Your task to perform on an android device: What's on my calendar today? Image 0: 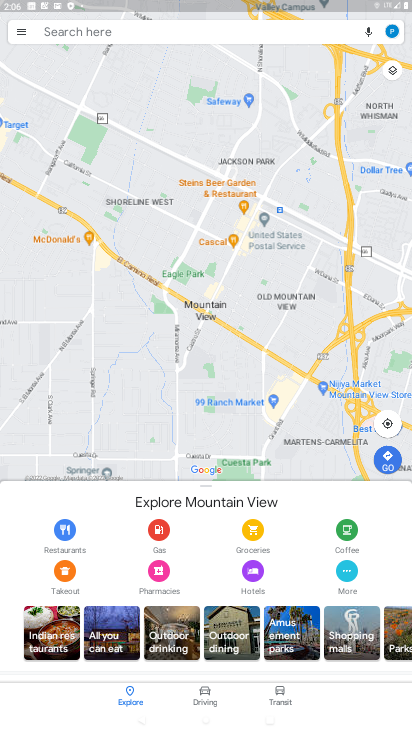
Step 0: press home button
Your task to perform on an android device: What's on my calendar today? Image 1: 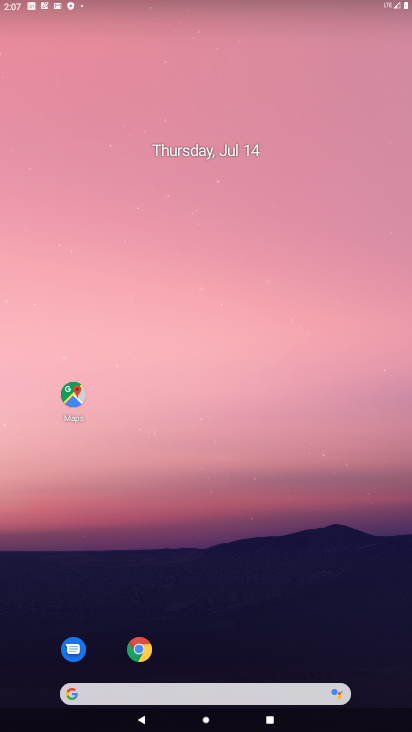
Step 1: drag from (392, 677) to (179, 74)
Your task to perform on an android device: What's on my calendar today? Image 2: 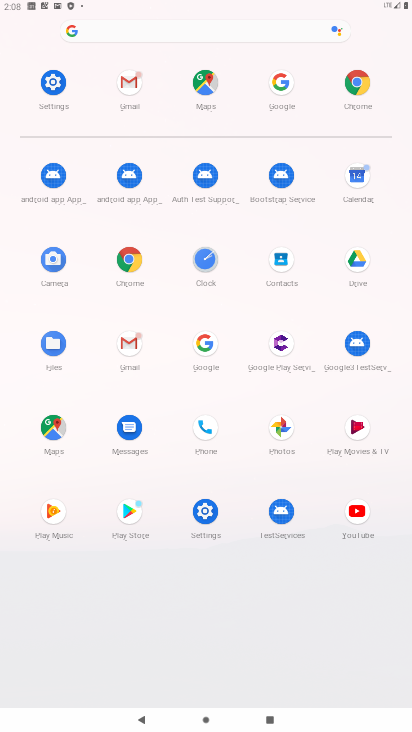
Step 2: click (363, 173)
Your task to perform on an android device: What's on my calendar today? Image 3: 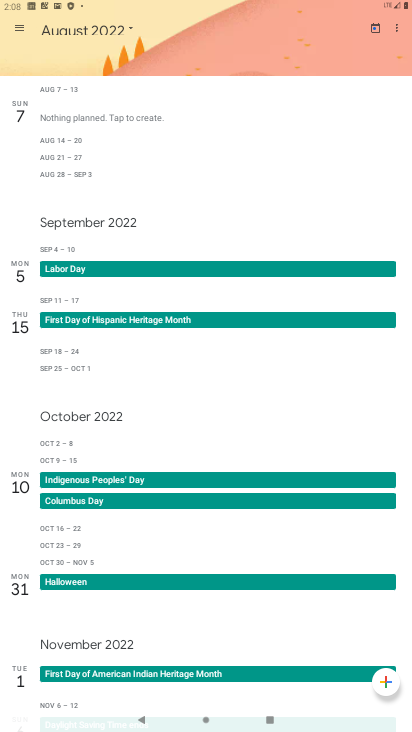
Step 3: task complete